Your task to perform on an android device: change timer sound Image 0: 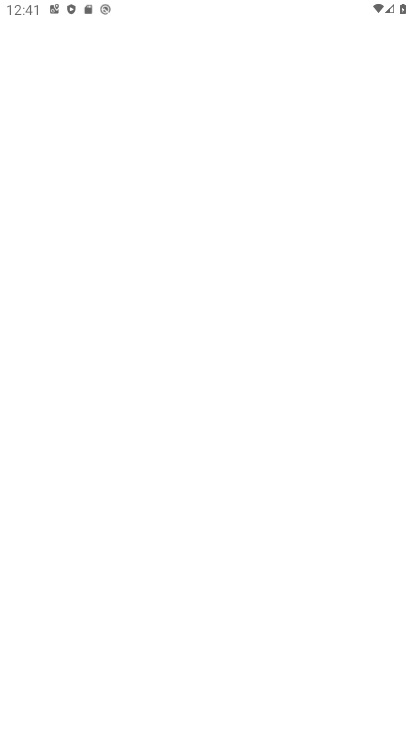
Step 0: click (228, 678)
Your task to perform on an android device: change timer sound Image 1: 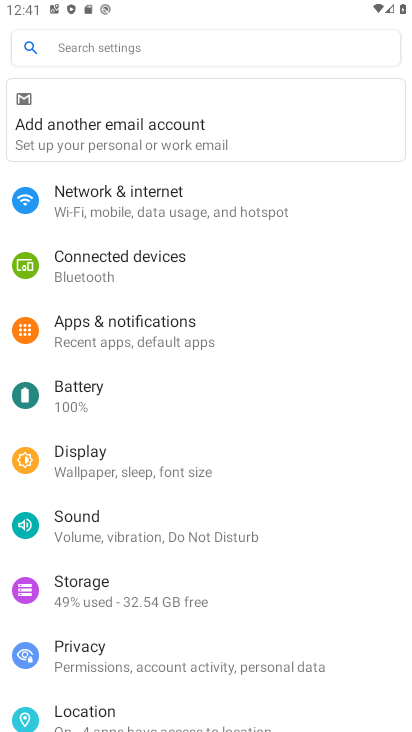
Step 1: press home button
Your task to perform on an android device: change timer sound Image 2: 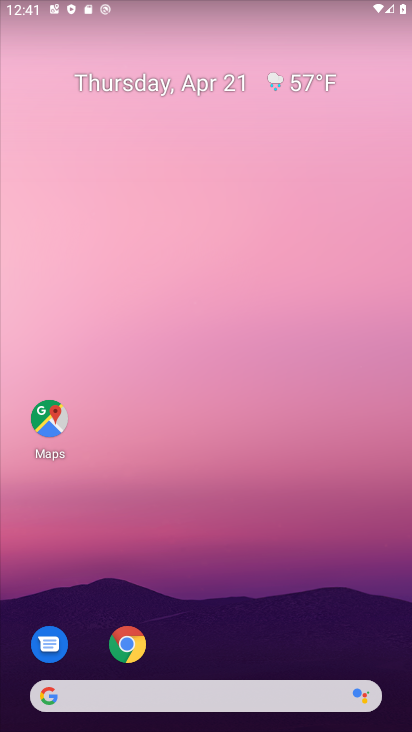
Step 2: drag from (213, 672) to (119, 17)
Your task to perform on an android device: change timer sound Image 3: 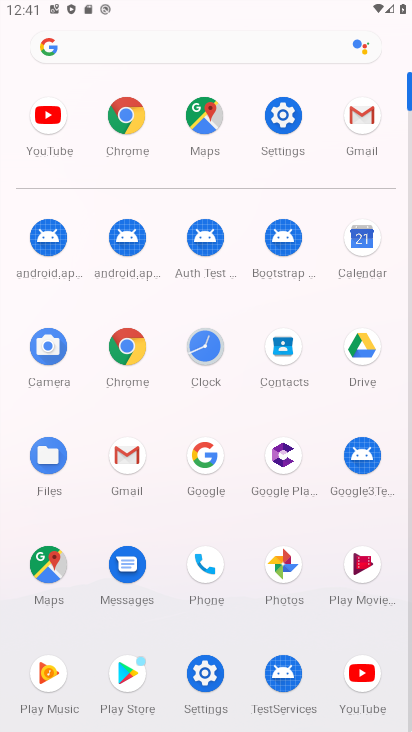
Step 3: click (204, 348)
Your task to perform on an android device: change timer sound Image 4: 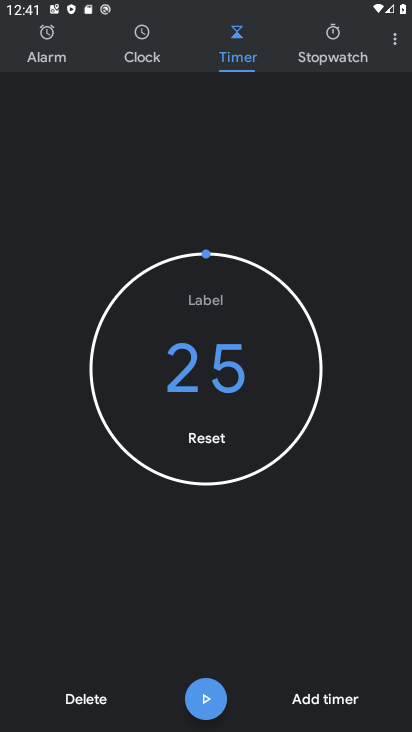
Step 4: click (398, 40)
Your task to perform on an android device: change timer sound Image 5: 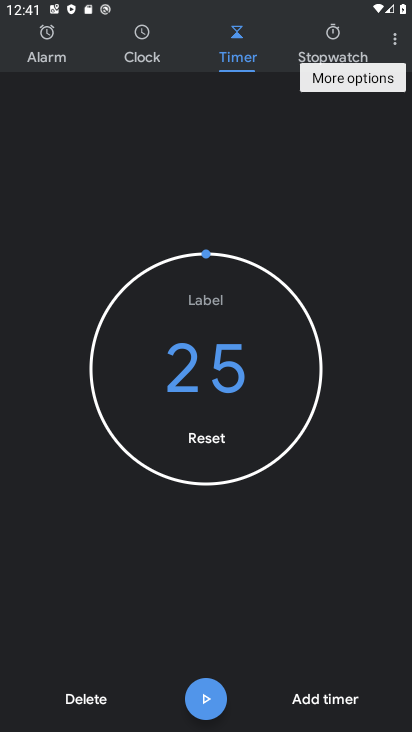
Step 5: click (367, 73)
Your task to perform on an android device: change timer sound Image 6: 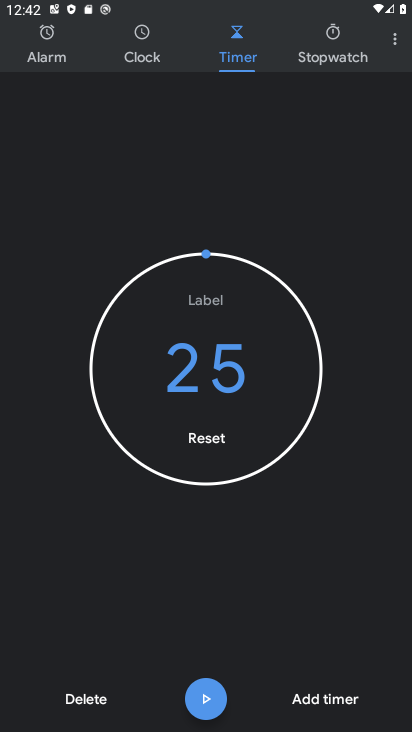
Step 6: click (392, 36)
Your task to perform on an android device: change timer sound Image 7: 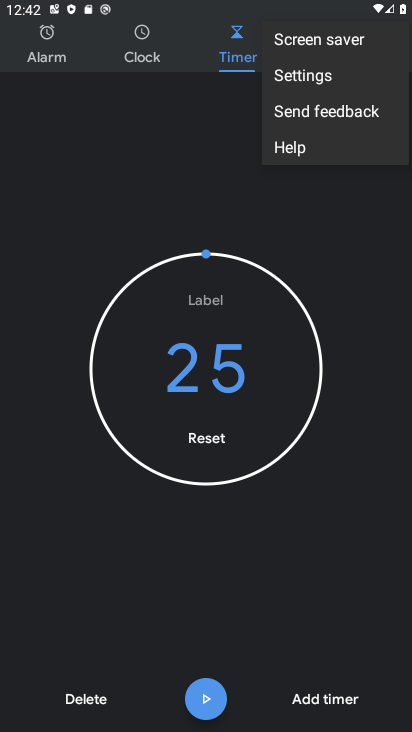
Step 7: click (346, 74)
Your task to perform on an android device: change timer sound Image 8: 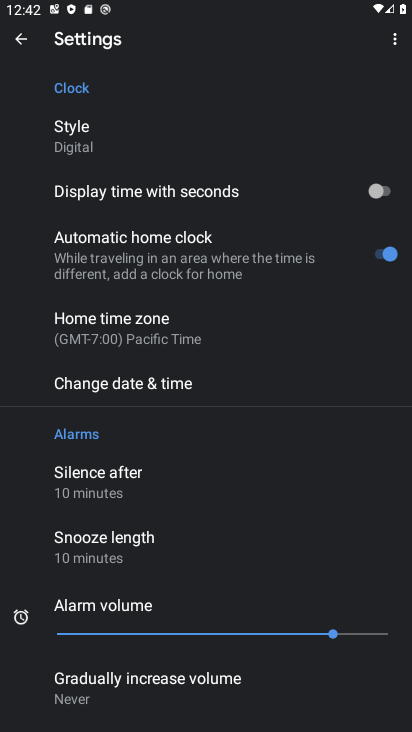
Step 8: drag from (159, 544) to (106, 35)
Your task to perform on an android device: change timer sound Image 9: 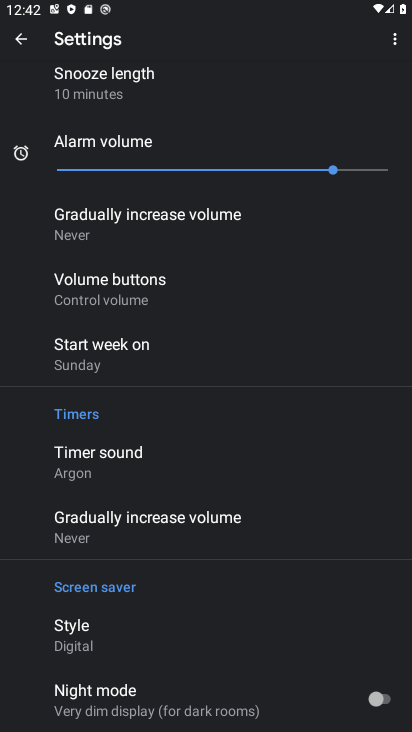
Step 9: click (116, 469)
Your task to perform on an android device: change timer sound Image 10: 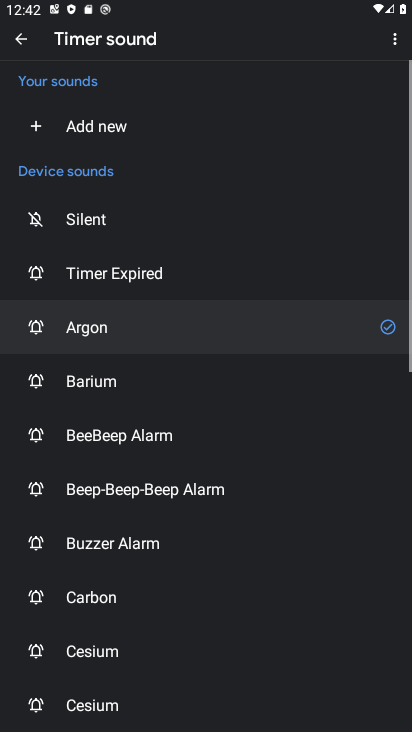
Step 10: click (80, 268)
Your task to perform on an android device: change timer sound Image 11: 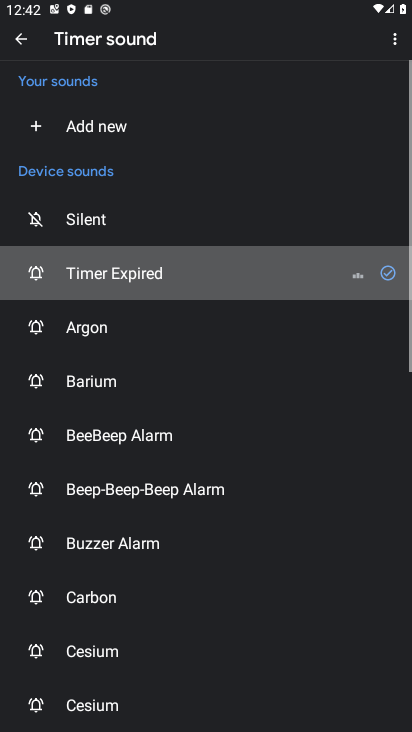
Step 11: task complete